Your task to perform on an android device: find photos in the google photos app Image 0: 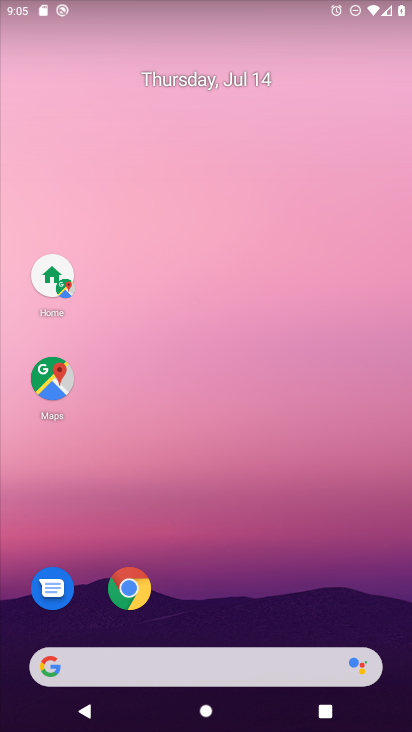
Step 0: drag from (25, 689) to (221, 278)
Your task to perform on an android device: find photos in the google photos app Image 1: 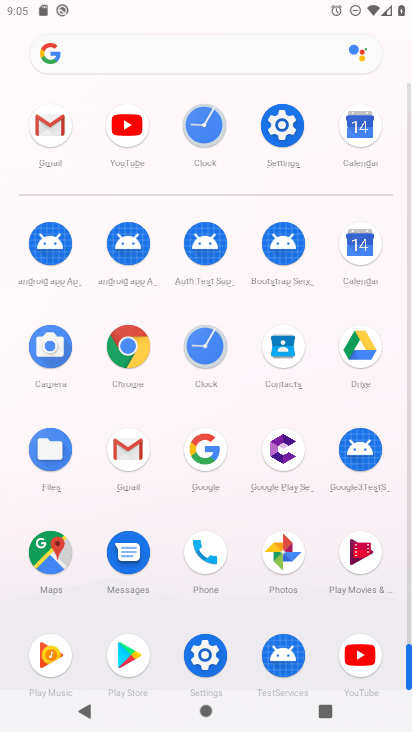
Step 1: click (272, 567)
Your task to perform on an android device: find photos in the google photos app Image 2: 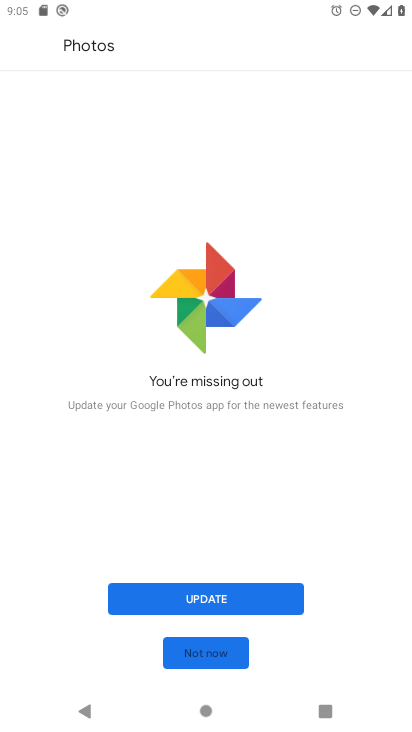
Step 2: click (223, 657)
Your task to perform on an android device: find photos in the google photos app Image 3: 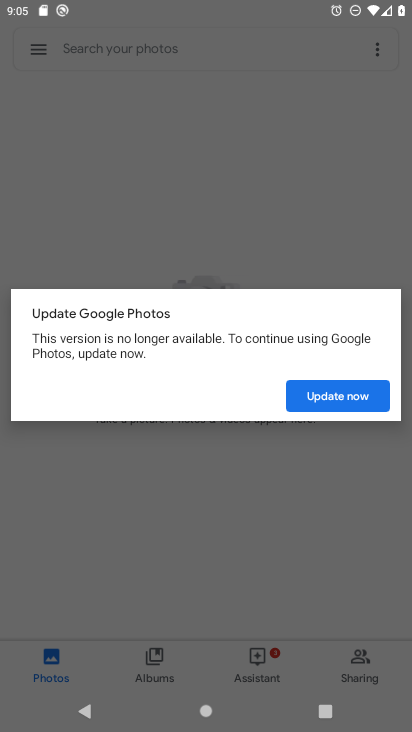
Step 3: click (351, 396)
Your task to perform on an android device: find photos in the google photos app Image 4: 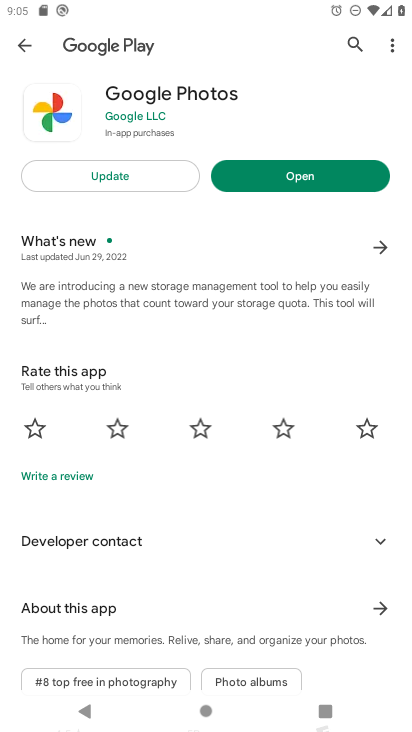
Step 4: click (322, 174)
Your task to perform on an android device: find photos in the google photos app Image 5: 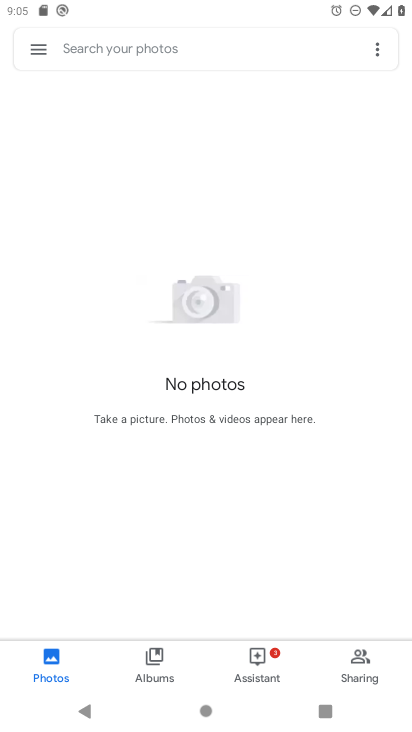
Step 5: task complete